Your task to perform on an android device: check battery use Image 0: 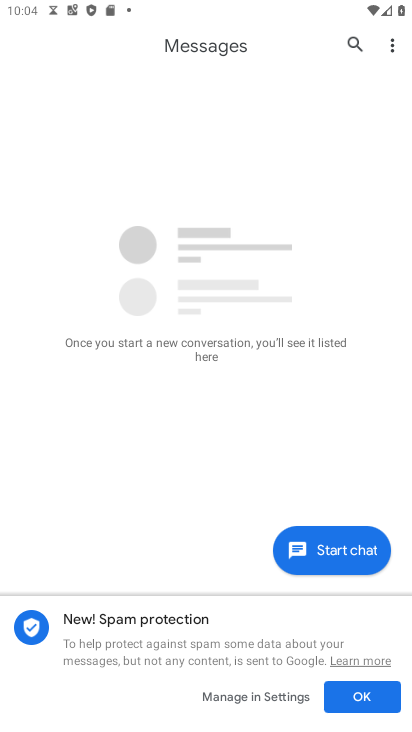
Step 0: press home button
Your task to perform on an android device: check battery use Image 1: 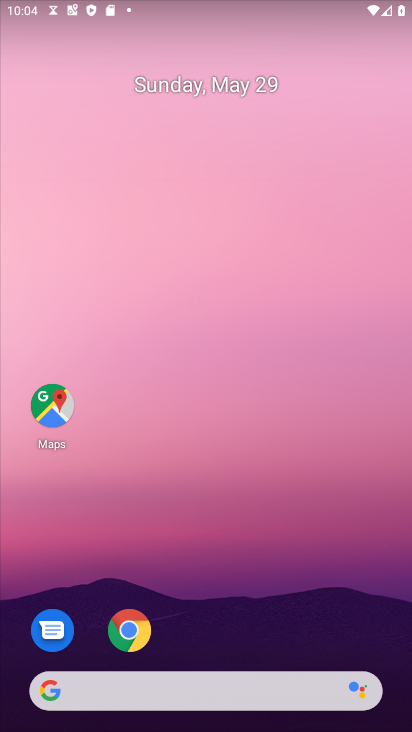
Step 1: drag from (239, 600) to (239, 30)
Your task to perform on an android device: check battery use Image 2: 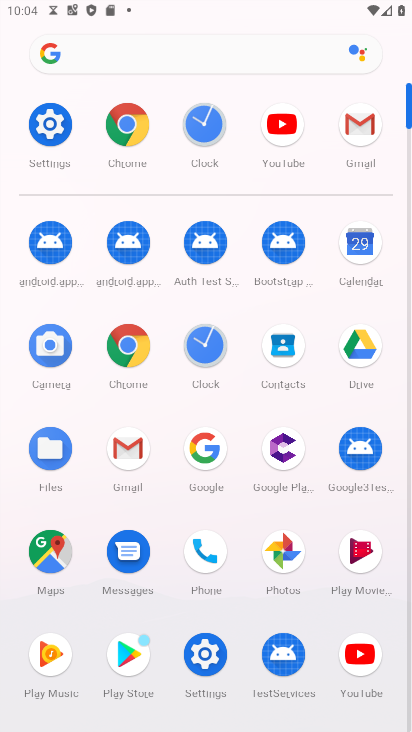
Step 2: click (47, 121)
Your task to perform on an android device: check battery use Image 3: 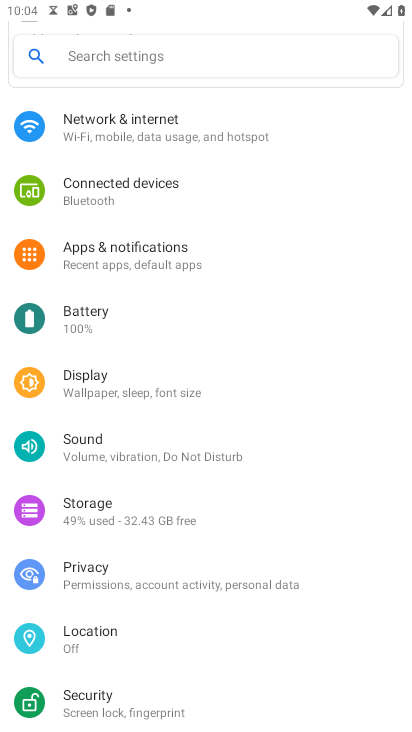
Step 3: click (98, 325)
Your task to perform on an android device: check battery use Image 4: 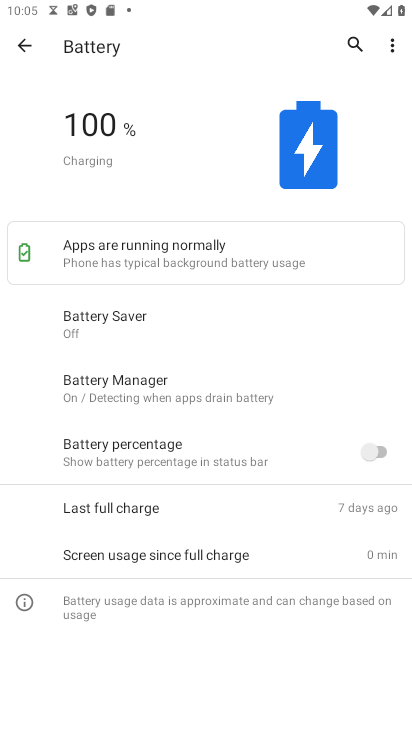
Step 4: click (392, 50)
Your task to perform on an android device: check battery use Image 5: 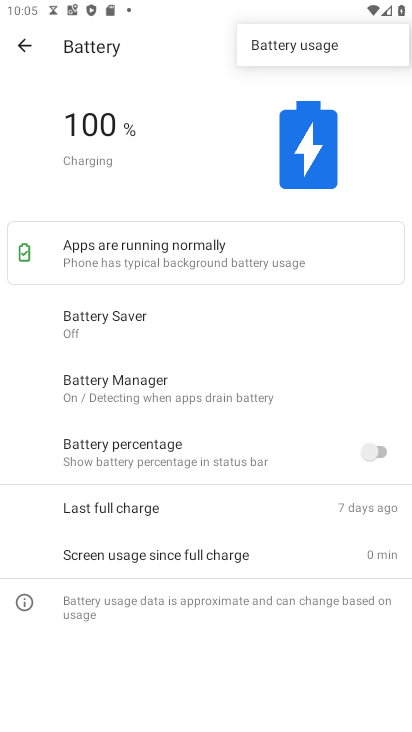
Step 5: click (342, 44)
Your task to perform on an android device: check battery use Image 6: 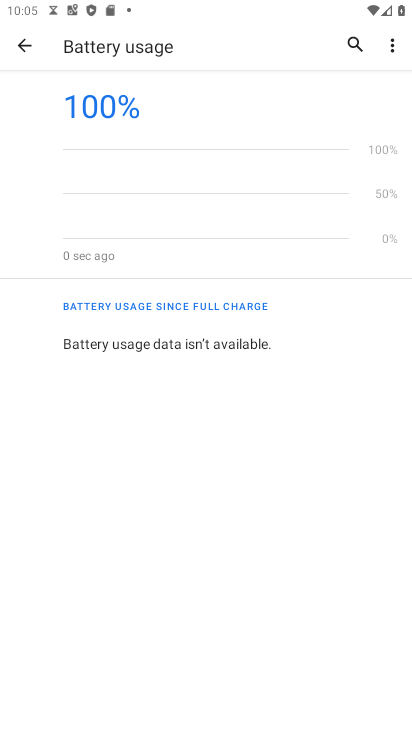
Step 6: task complete